Your task to perform on an android device: Open calendar and show me the first week of next month Image 0: 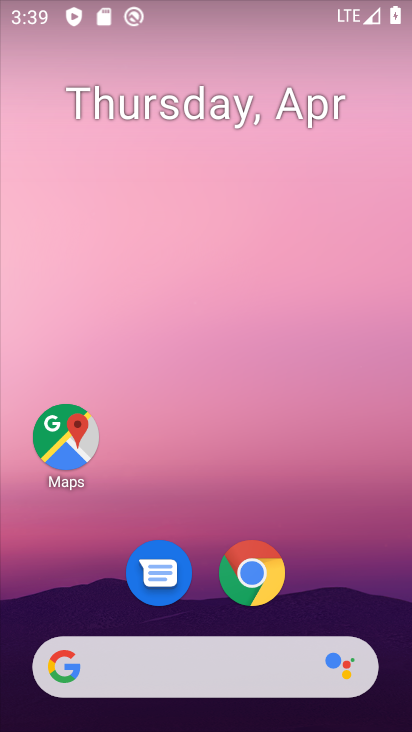
Step 0: drag from (343, 596) to (250, 53)
Your task to perform on an android device: Open calendar and show me the first week of next month Image 1: 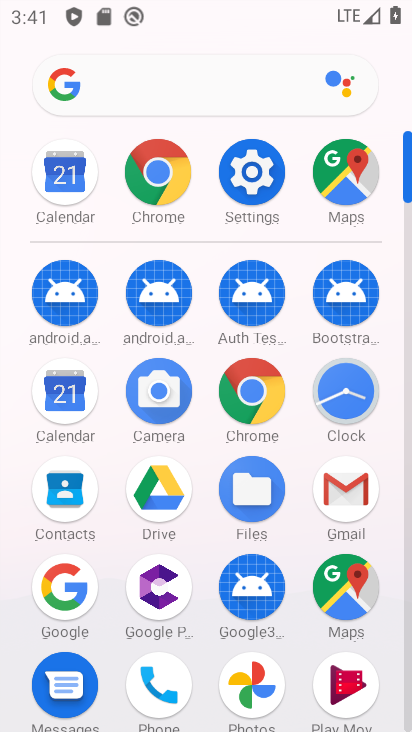
Step 1: click (61, 398)
Your task to perform on an android device: Open calendar and show me the first week of next month Image 2: 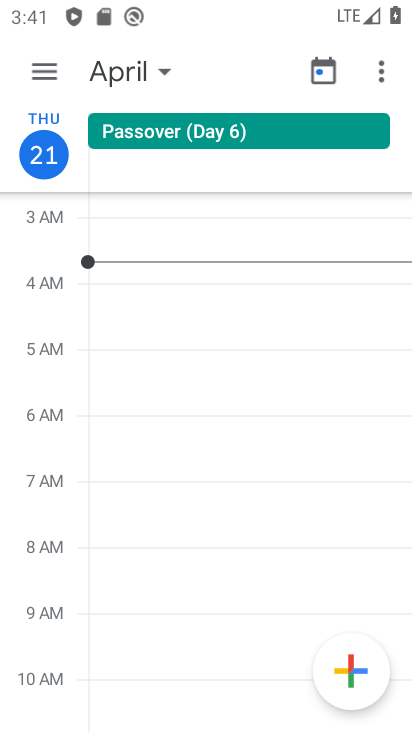
Step 2: click (119, 75)
Your task to perform on an android device: Open calendar and show me the first week of next month Image 3: 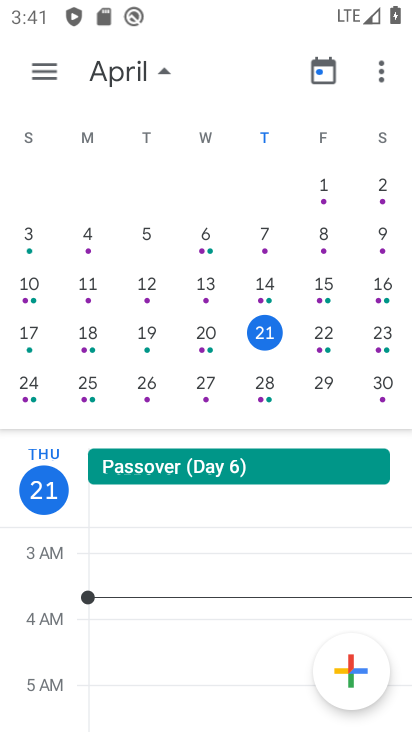
Step 3: drag from (358, 350) to (0, 276)
Your task to perform on an android device: Open calendar and show me the first week of next month Image 4: 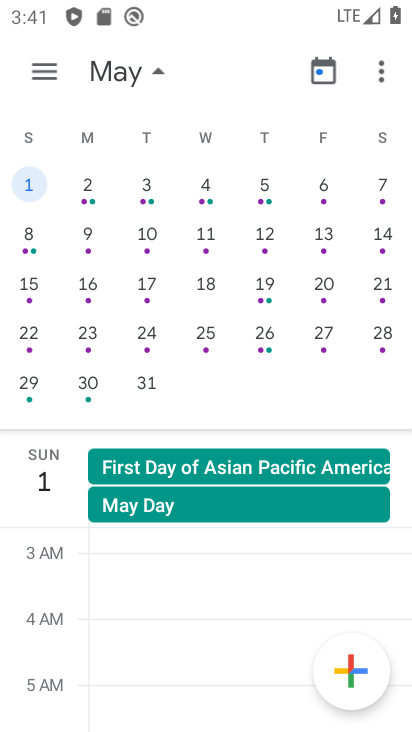
Step 4: click (96, 187)
Your task to perform on an android device: Open calendar and show me the first week of next month Image 5: 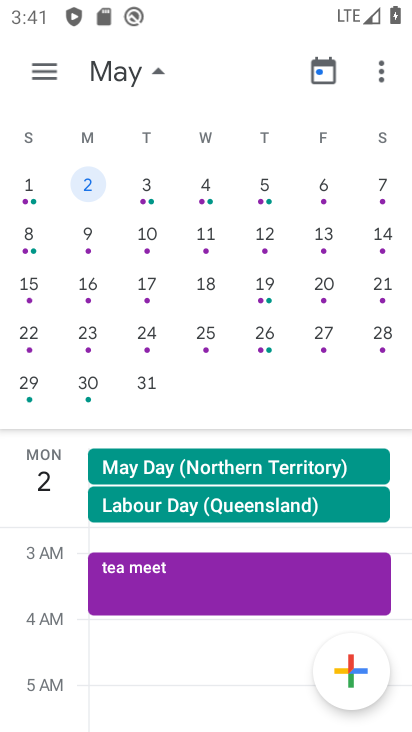
Step 5: task complete